Your task to perform on an android device: Open sound settings Image 0: 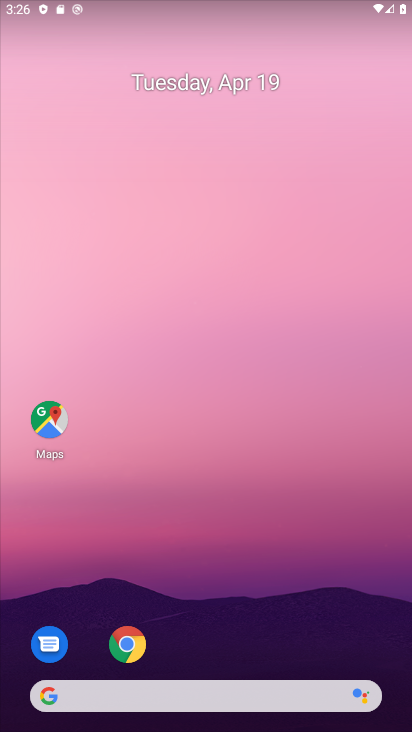
Step 0: drag from (189, 666) to (233, 198)
Your task to perform on an android device: Open sound settings Image 1: 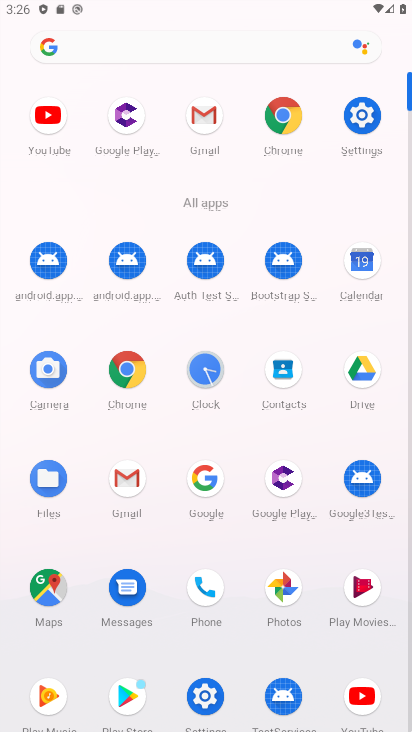
Step 1: click (205, 690)
Your task to perform on an android device: Open sound settings Image 2: 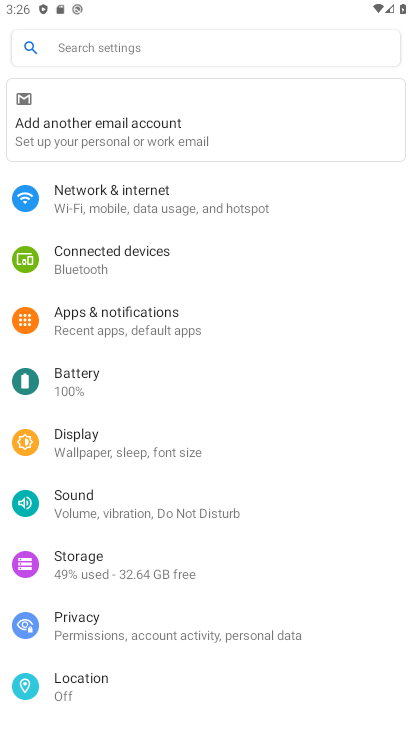
Step 2: click (135, 512)
Your task to perform on an android device: Open sound settings Image 3: 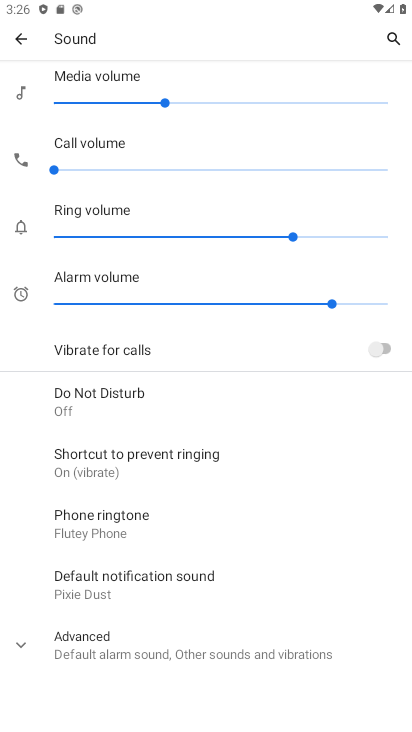
Step 3: task complete